Your task to perform on an android device: Check the weather Image 0: 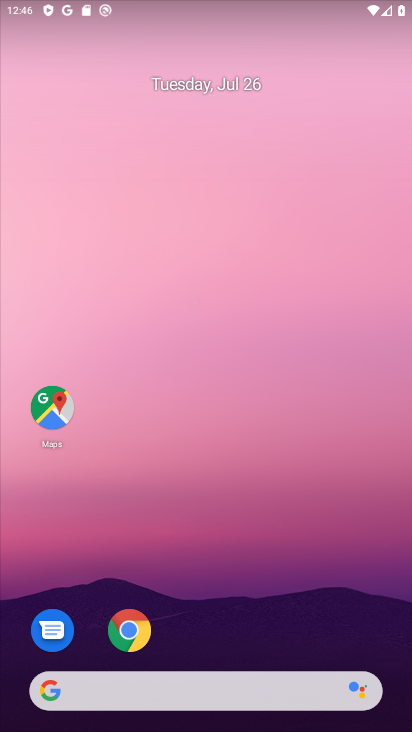
Step 0: click (188, 687)
Your task to perform on an android device: Check the weather Image 1: 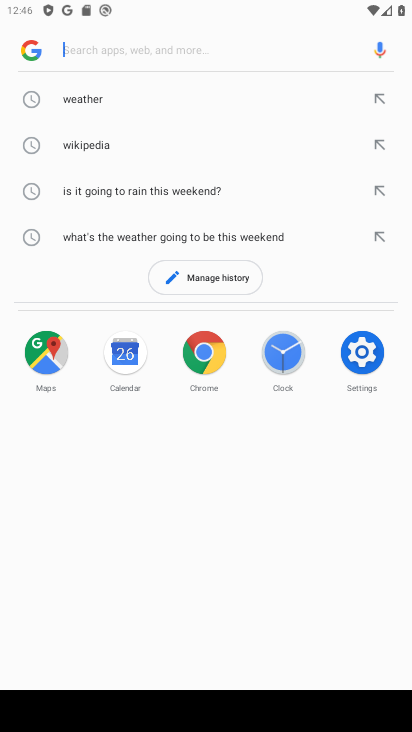
Step 1: click (86, 102)
Your task to perform on an android device: Check the weather Image 2: 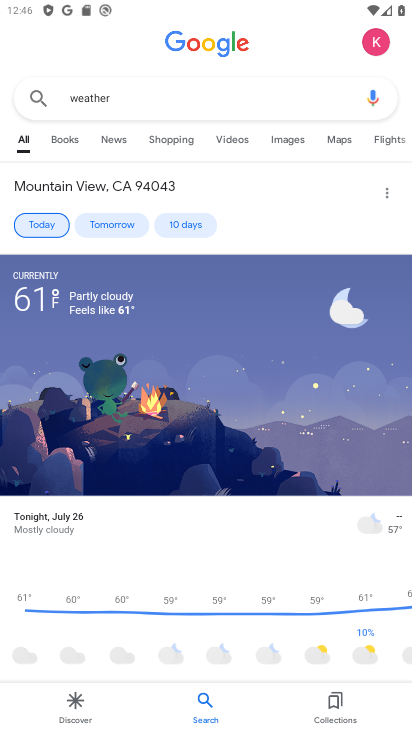
Step 2: task complete